Your task to perform on an android device: change text size in settings app Image 0: 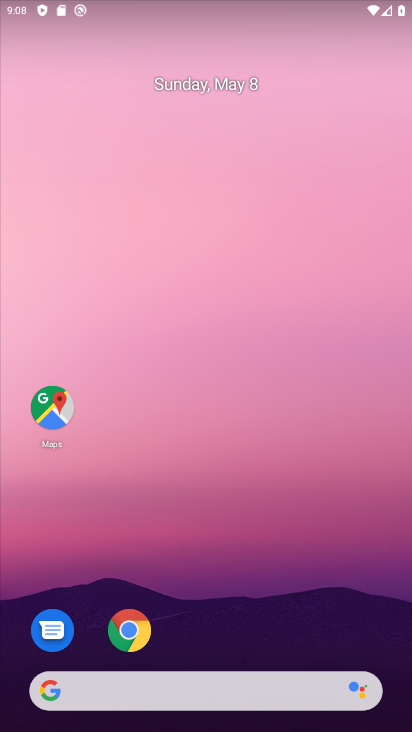
Step 0: drag from (151, 662) to (255, 216)
Your task to perform on an android device: change text size in settings app Image 1: 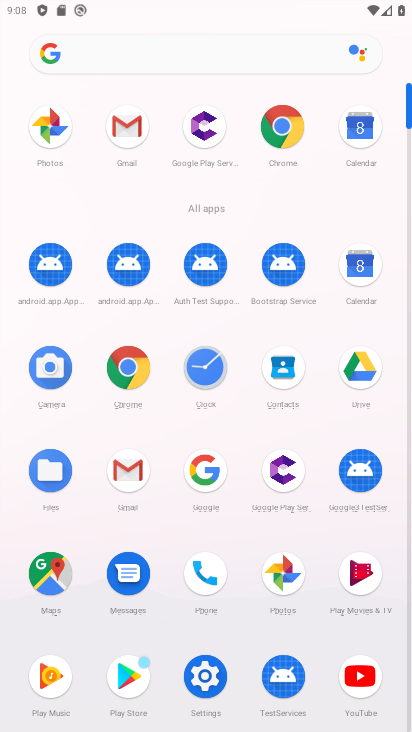
Step 1: click (204, 676)
Your task to perform on an android device: change text size in settings app Image 2: 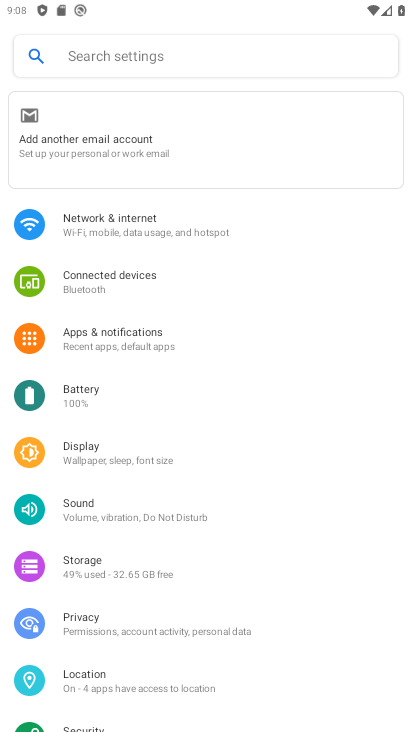
Step 2: drag from (265, 586) to (322, 257)
Your task to perform on an android device: change text size in settings app Image 3: 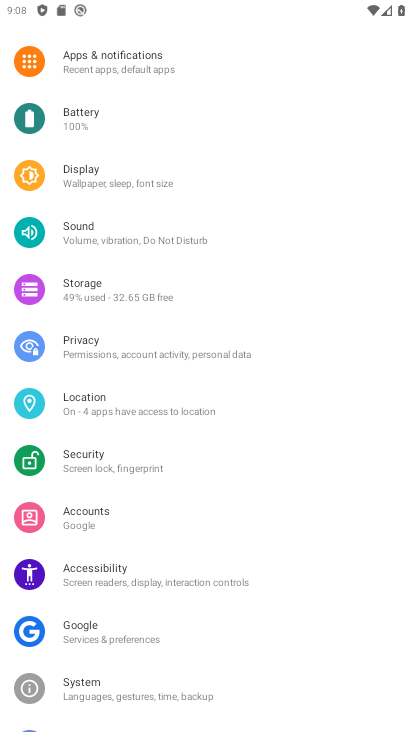
Step 3: click (138, 185)
Your task to perform on an android device: change text size in settings app Image 4: 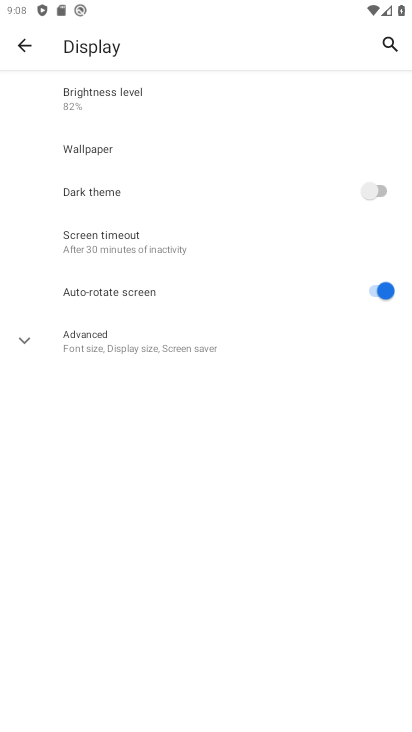
Step 4: click (82, 339)
Your task to perform on an android device: change text size in settings app Image 5: 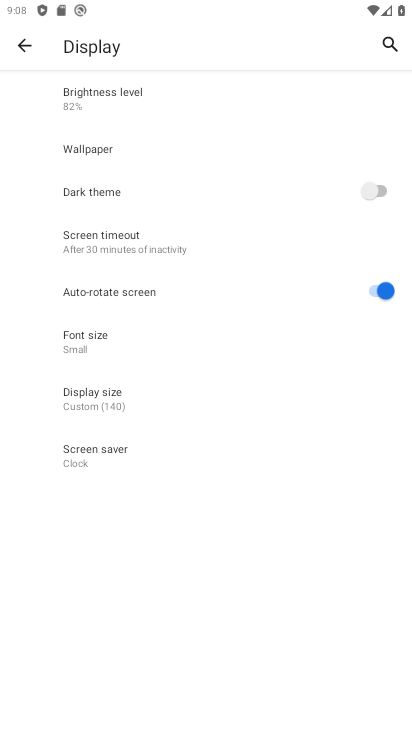
Step 5: click (88, 347)
Your task to perform on an android device: change text size in settings app Image 6: 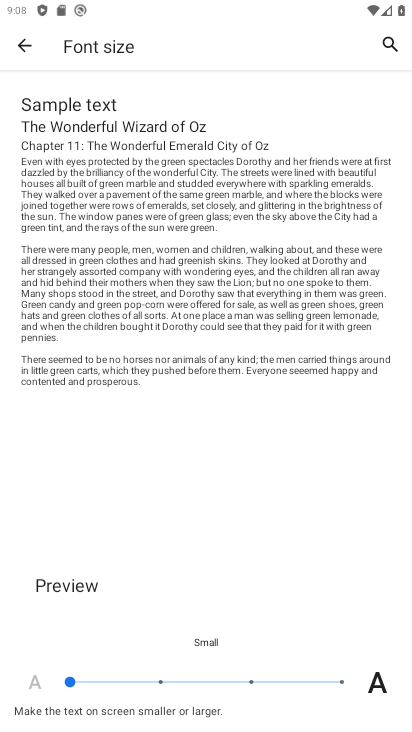
Step 6: click (162, 683)
Your task to perform on an android device: change text size in settings app Image 7: 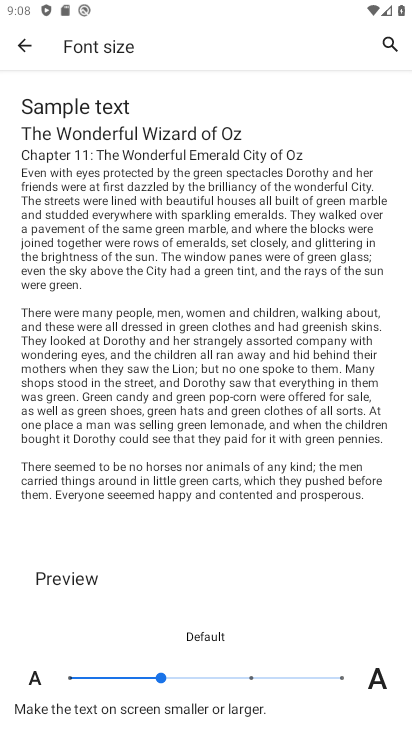
Step 7: task complete